Your task to perform on an android device: empty trash in google photos Image 0: 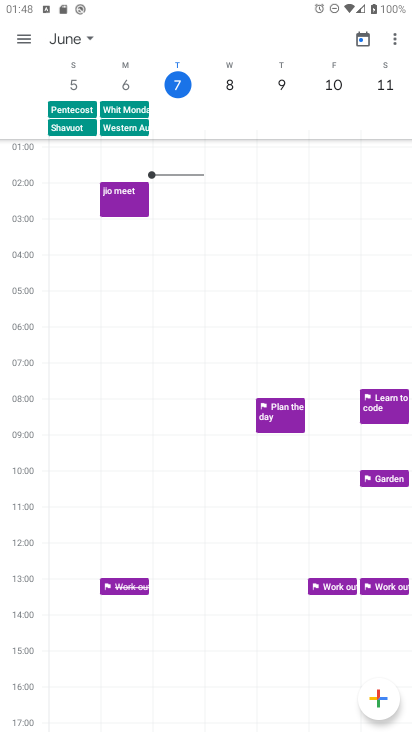
Step 0: press home button
Your task to perform on an android device: empty trash in google photos Image 1: 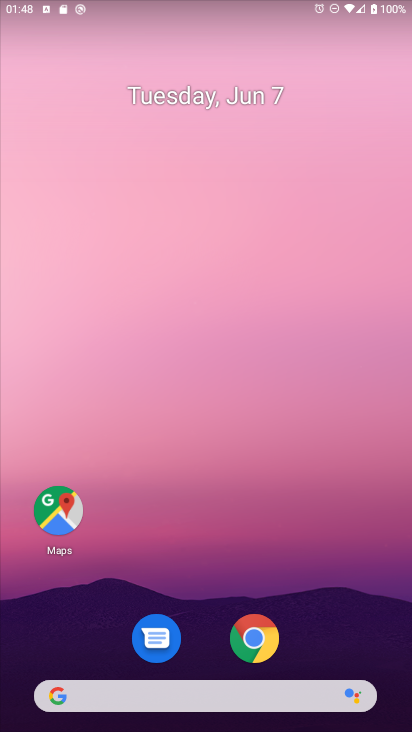
Step 1: drag from (234, 708) to (237, 154)
Your task to perform on an android device: empty trash in google photos Image 2: 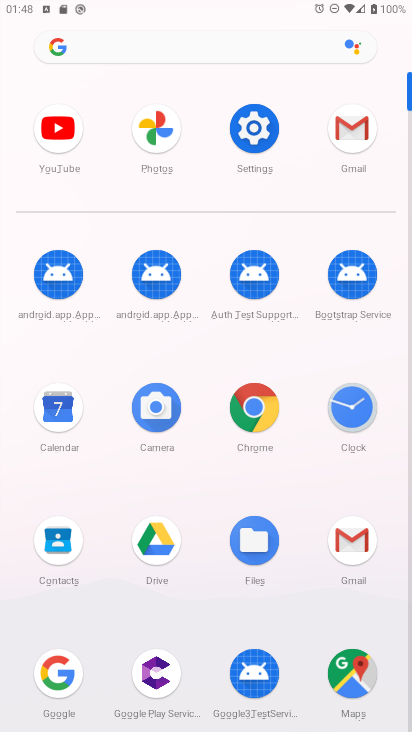
Step 2: drag from (198, 624) to (153, 422)
Your task to perform on an android device: empty trash in google photos Image 3: 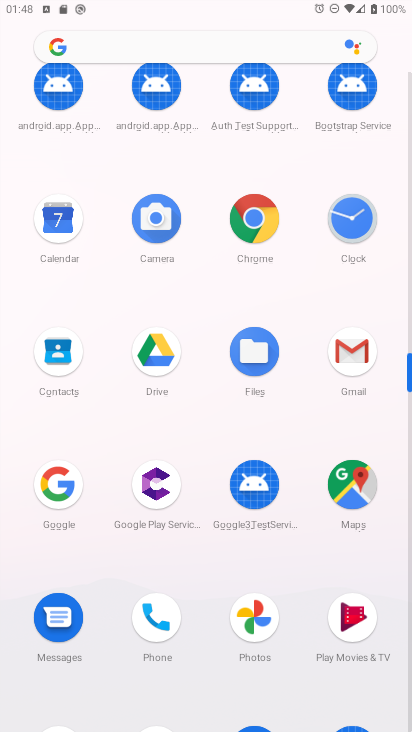
Step 3: click (257, 616)
Your task to perform on an android device: empty trash in google photos Image 4: 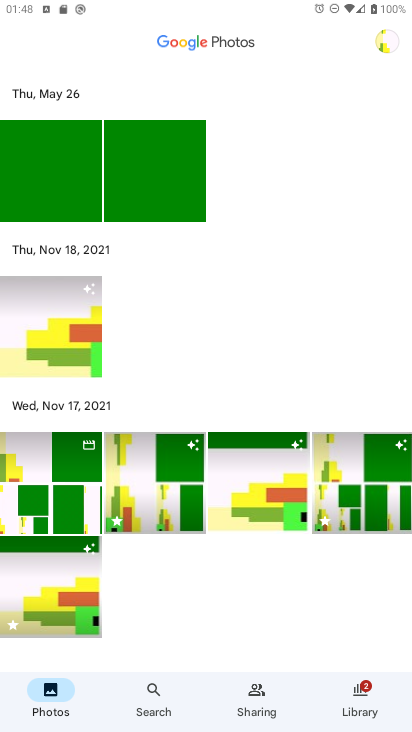
Step 4: click (156, 686)
Your task to perform on an android device: empty trash in google photos Image 5: 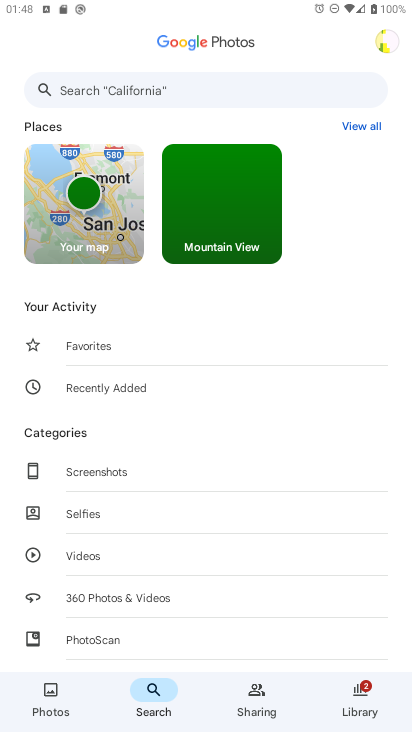
Step 5: click (145, 84)
Your task to perform on an android device: empty trash in google photos Image 6: 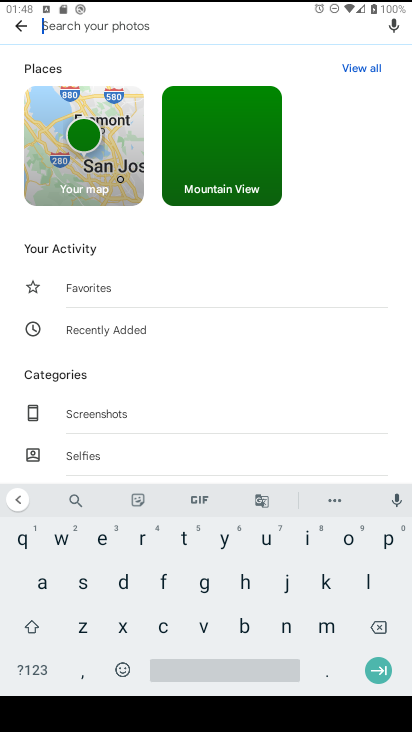
Step 6: click (177, 537)
Your task to perform on an android device: empty trash in google photos Image 7: 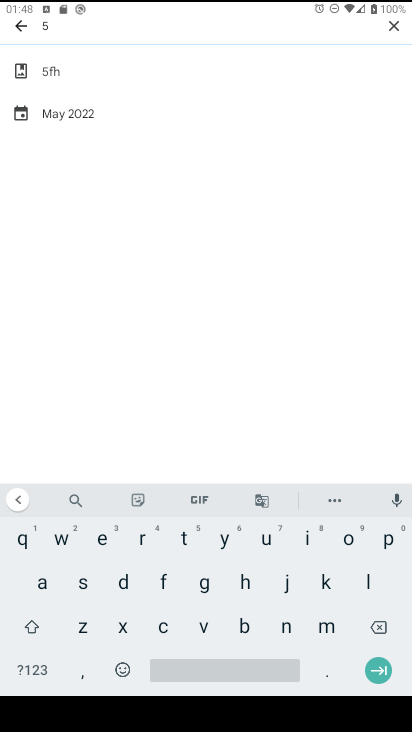
Step 7: click (139, 532)
Your task to perform on an android device: empty trash in google photos Image 8: 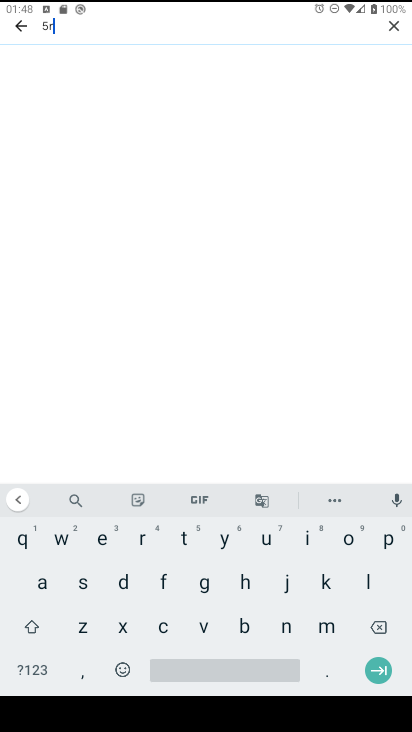
Step 8: click (36, 568)
Your task to perform on an android device: empty trash in google photos Image 9: 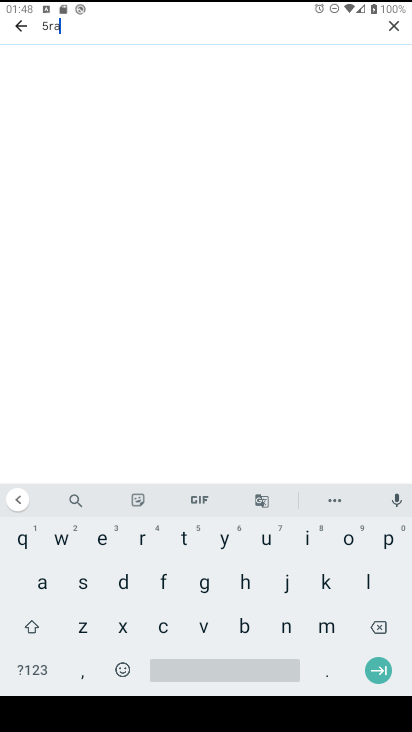
Step 9: click (379, 629)
Your task to perform on an android device: empty trash in google photos Image 10: 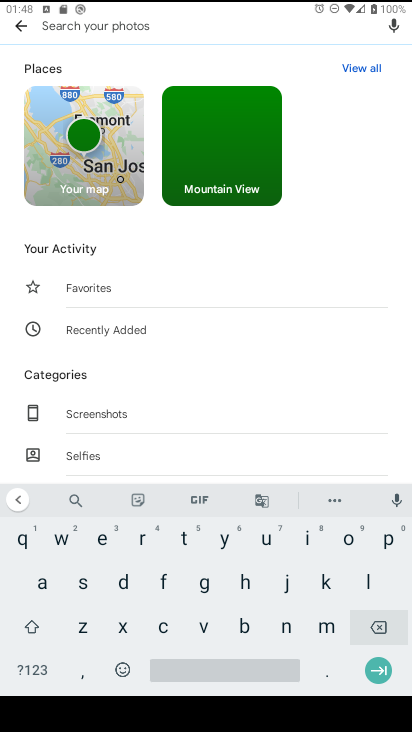
Step 10: click (379, 629)
Your task to perform on an android device: empty trash in google photos Image 11: 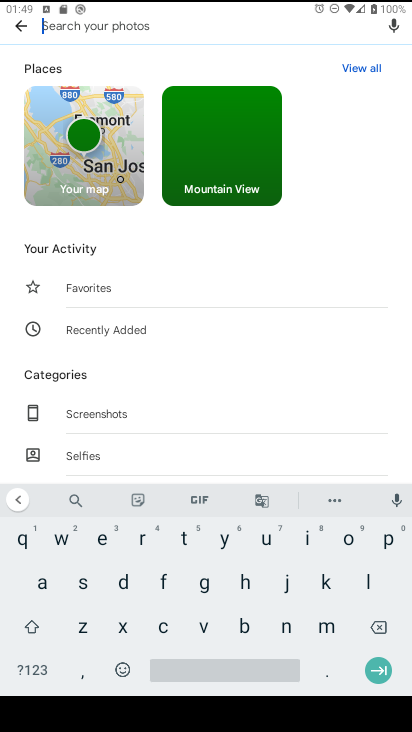
Step 11: click (176, 539)
Your task to perform on an android device: empty trash in google photos Image 12: 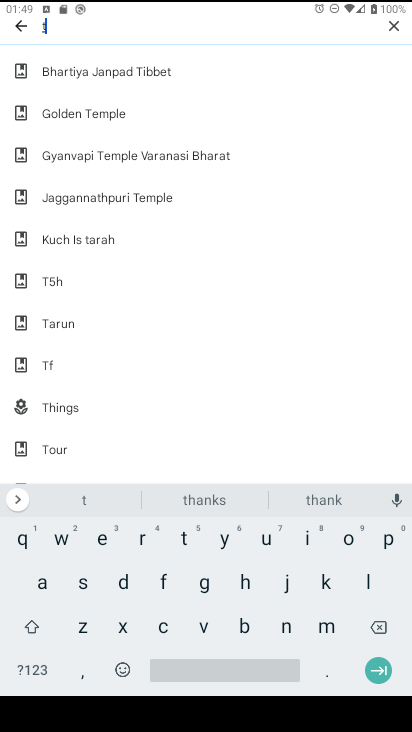
Step 12: click (142, 537)
Your task to perform on an android device: empty trash in google photos Image 13: 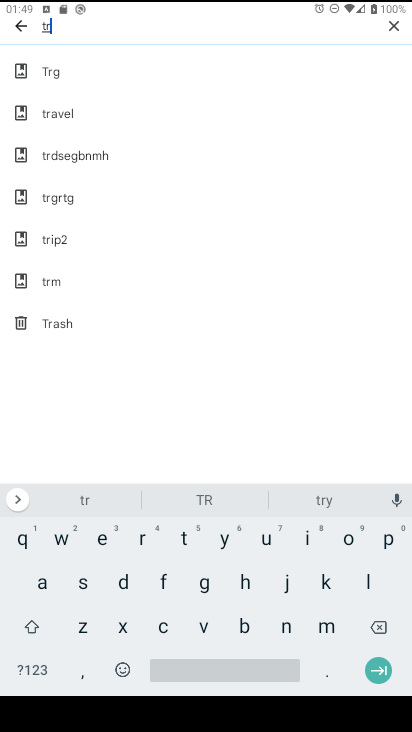
Step 13: click (42, 581)
Your task to perform on an android device: empty trash in google photos Image 14: 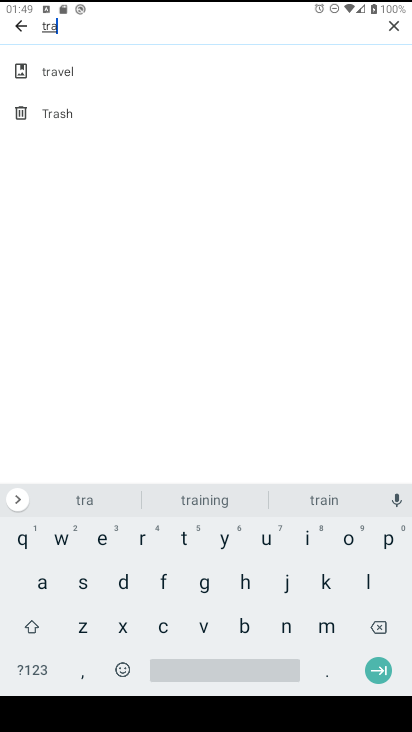
Step 14: click (71, 121)
Your task to perform on an android device: empty trash in google photos Image 15: 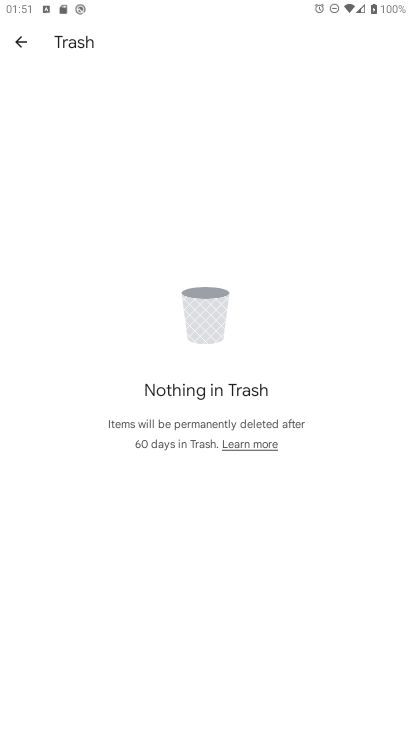
Step 15: task complete